Your task to perform on an android device: empty trash in the gmail app Image 0: 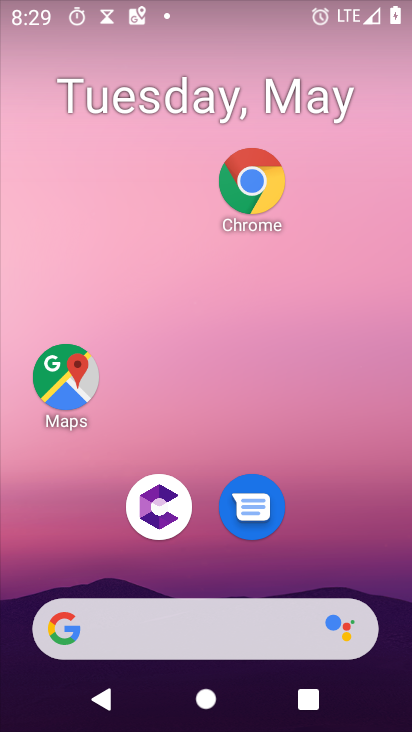
Step 0: drag from (322, 542) to (329, 57)
Your task to perform on an android device: empty trash in the gmail app Image 1: 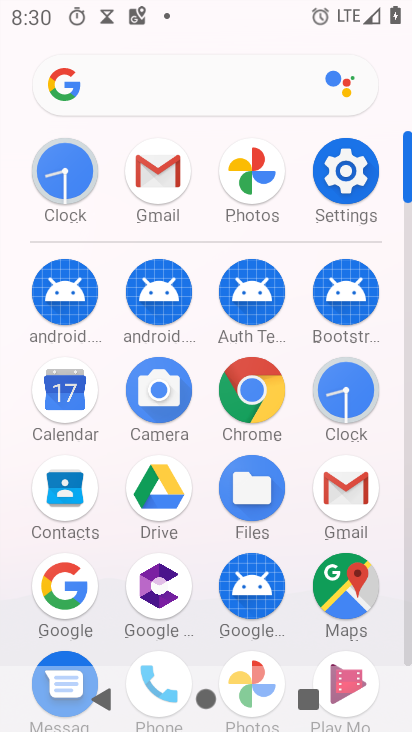
Step 1: click (160, 178)
Your task to perform on an android device: empty trash in the gmail app Image 2: 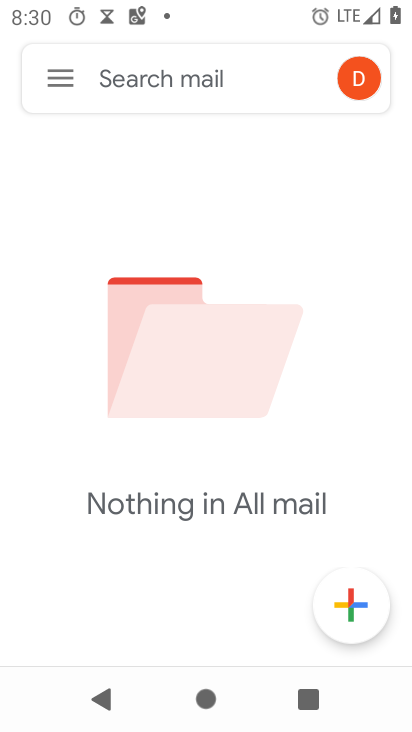
Step 2: click (52, 70)
Your task to perform on an android device: empty trash in the gmail app Image 3: 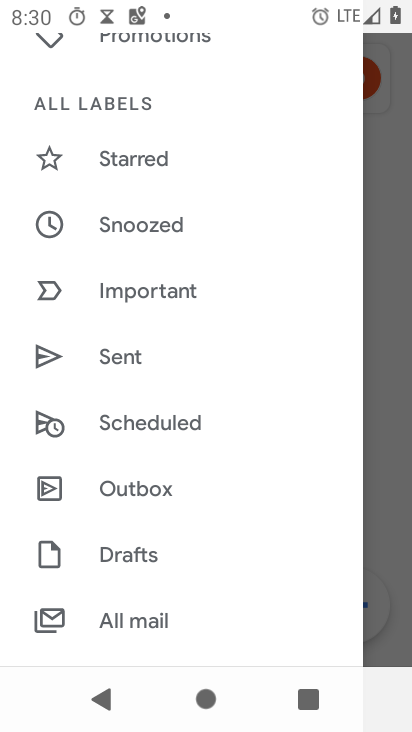
Step 3: drag from (146, 606) to (168, 247)
Your task to perform on an android device: empty trash in the gmail app Image 4: 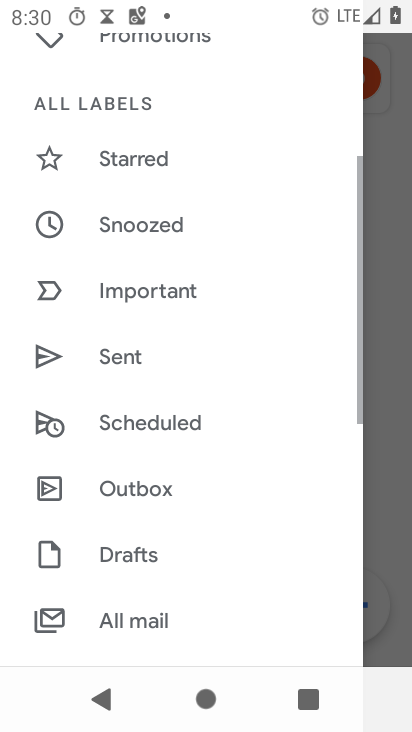
Step 4: drag from (179, 384) to (240, 243)
Your task to perform on an android device: empty trash in the gmail app Image 5: 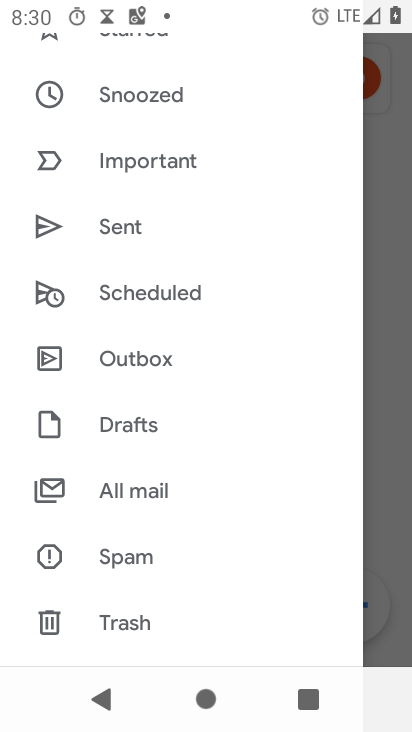
Step 5: click (184, 618)
Your task to perform on an android device: empty trash in the gmail app Image 6: 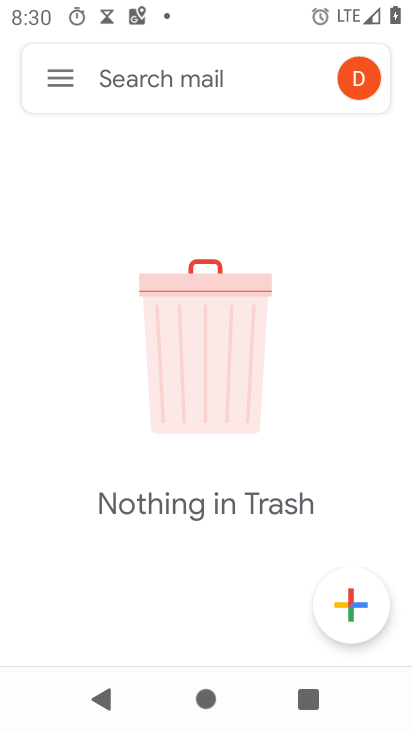
Step 6: task complete